Your task to perform on an android device: star an email in the gmail app Image 0: 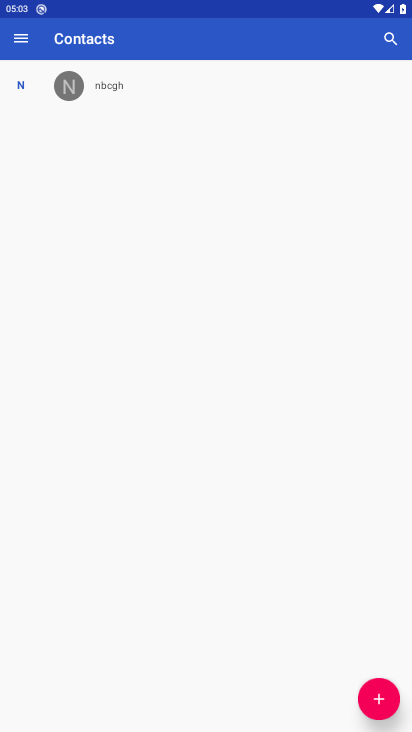
Step 0: press home button
Your task to perform on an android device: star an email in the gmail app Image 1: 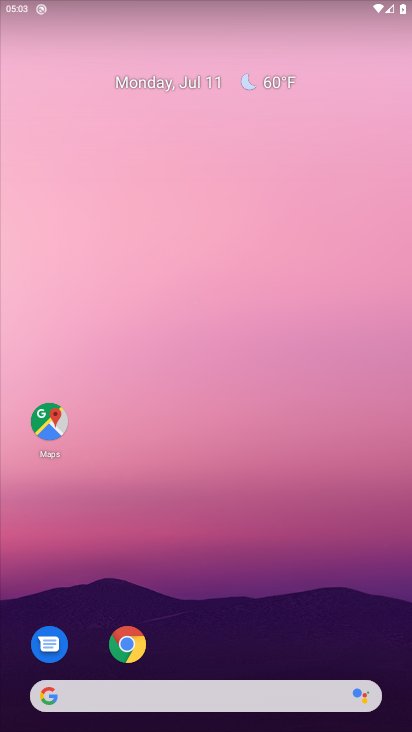
Step 1: drag from (160, 700) to (165, 440)
Your task to perform on an android device: star an email in the gmail app Image 2: 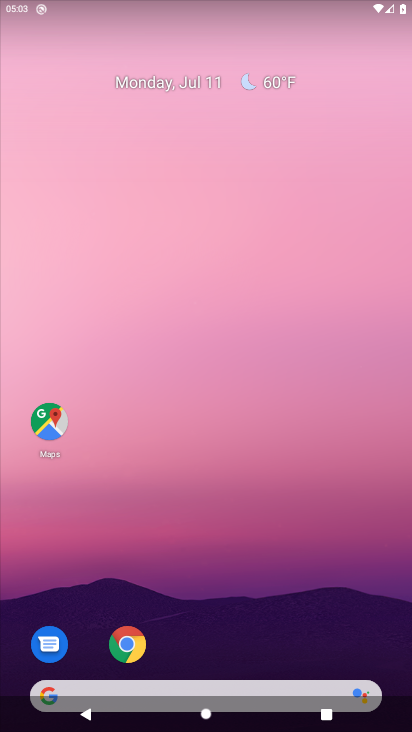
Step 2: drag from (267, 664) to (267, 335)
Your task to perform on an android device: star an email in the gmail app Image 3: 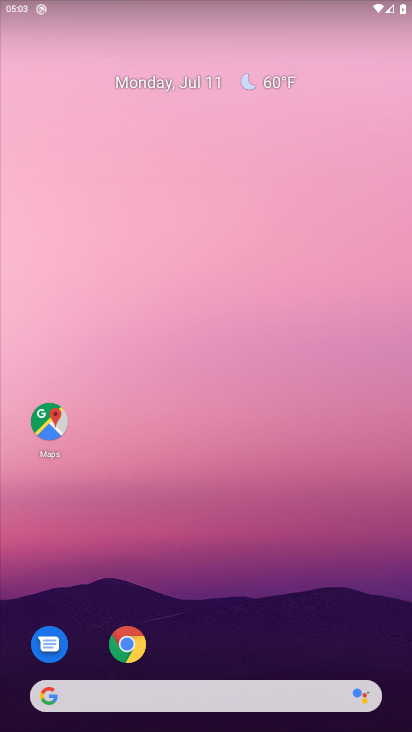
Step 3: drag from (248, 660) to (254, 333)
Your task to perform on an android device: star an email in the gmail app Image 4: 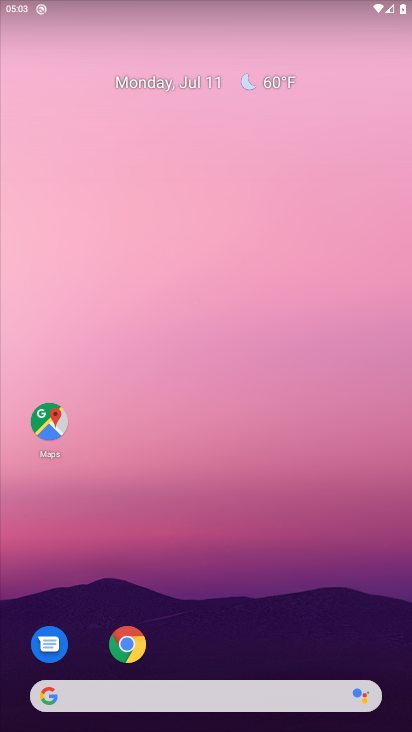
Step 4: drag from (182, 618) to (268, 30)
Your task to perform on an android device: star an email in the gmail app Image 5: 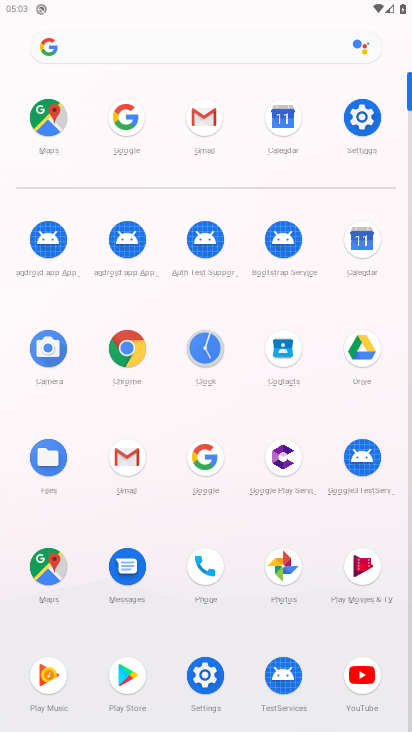
Step 5: click (202, 127)
Your task to perform on an android device: star an email in the gmail app Image 6: 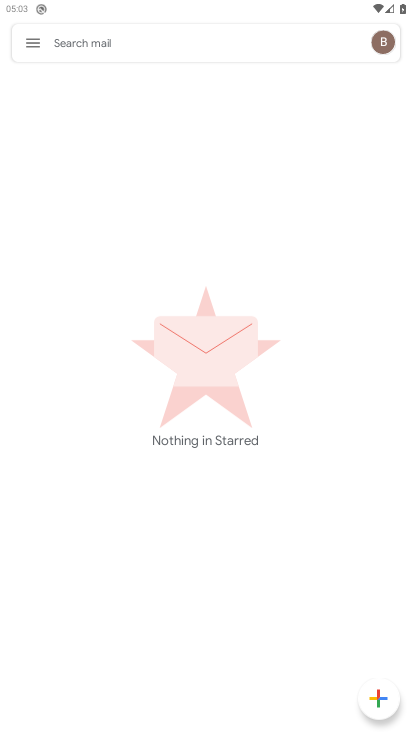
Step 6: click (35, 45)
Your task to perform on an android device: star an email in the gmail app Image 7: 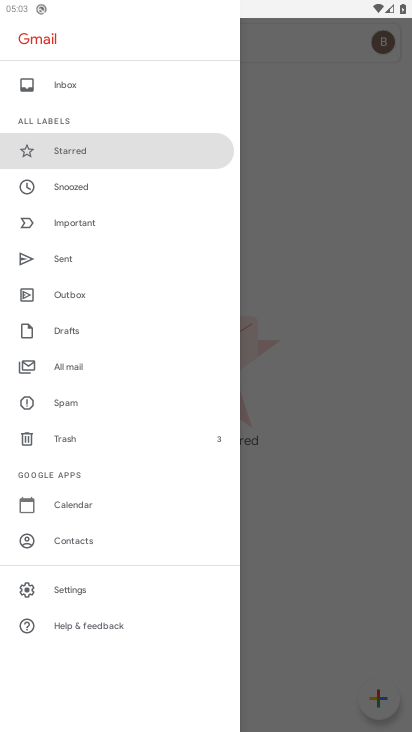
Step 7: click (65, 88)
Your task to perform on an android device: star an email in the gmail app Image 8: 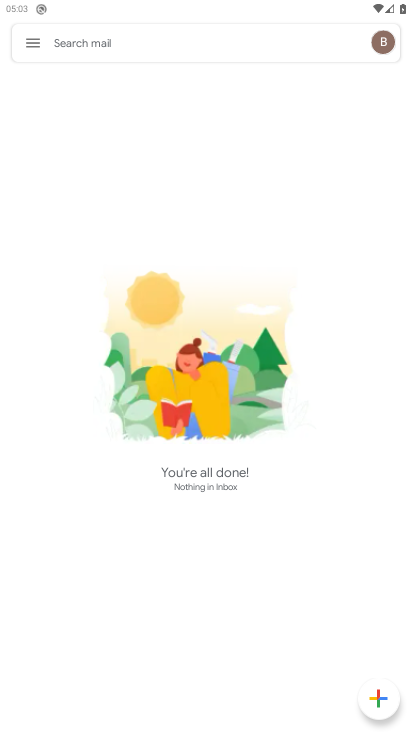
Step 8: task complete